Your task to perform on an android device: turn off improve location accuracy Image 0: 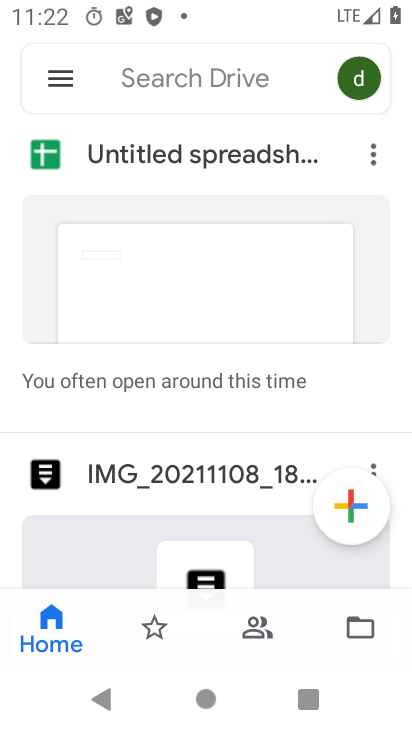
Step 0: press home button
Your task to perform on an android device: turn off improve location accuracy Image 1: 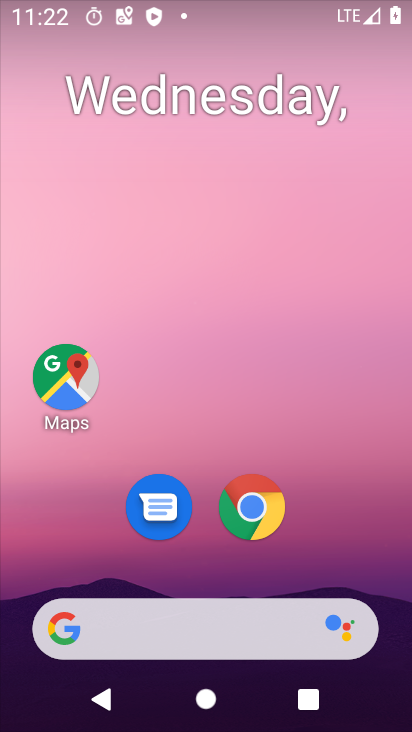
Step 1: drag from (238, 717) to (257, 57)
Your task to perform on an android device: turn off improve location accuracy Image 2: 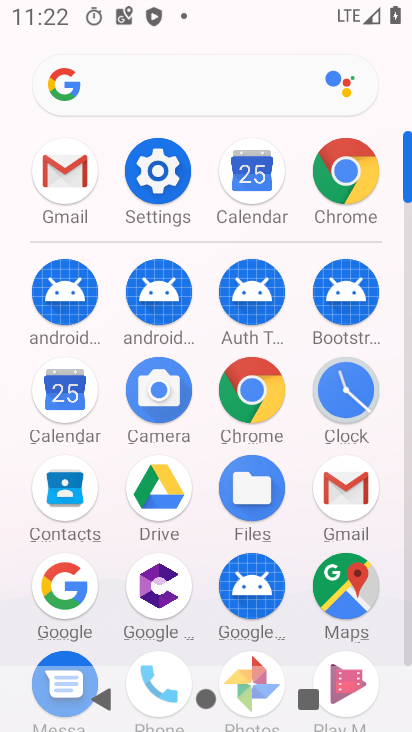
Step 2: click (145, 169)
Your task to perform on an android device: turn off improve location accuracy Image 3: 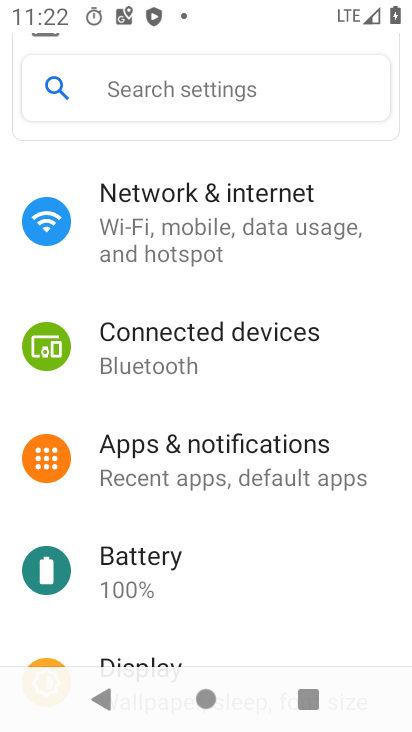
Step 3: drag from (201, 637) to (219, 224)
Your task to perform on an android device: turn off improve location accuracy Image 4: 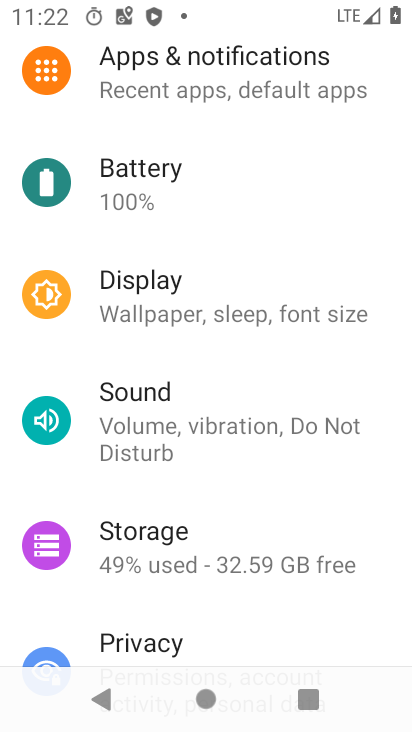
Step 4: drag from (183, 606) to (199, 185)
Your task to perform on an android device: turn off improve location accuracy Image 5: 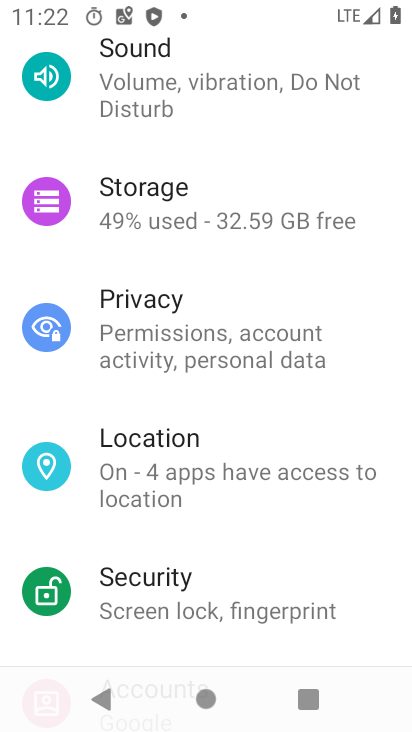
Step 5: click (182, 450)
Your task to perform on an android device: turn off improve location accuracy Image 6: 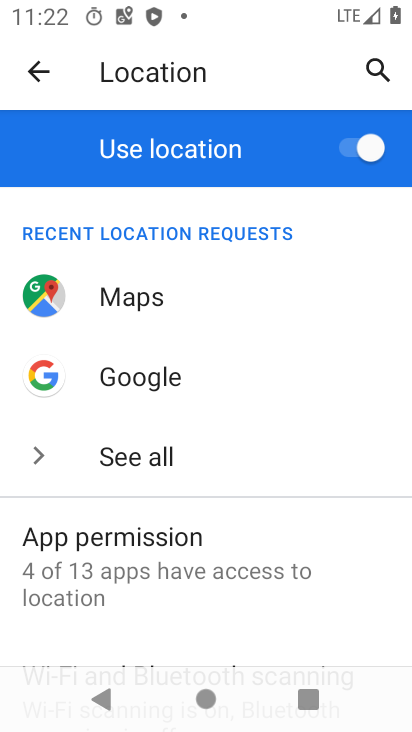
Step 6: drag from (115, 654) to (115, 291)
Your task to perform on an android device: turn off improve location accuracy Image 7: 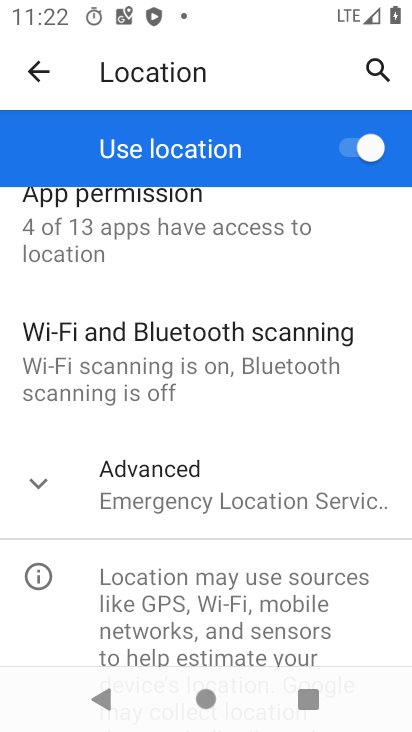
Step 7: click (153, 485)
Your task to perform on an android device: turn off improve location accuracy Image 8: 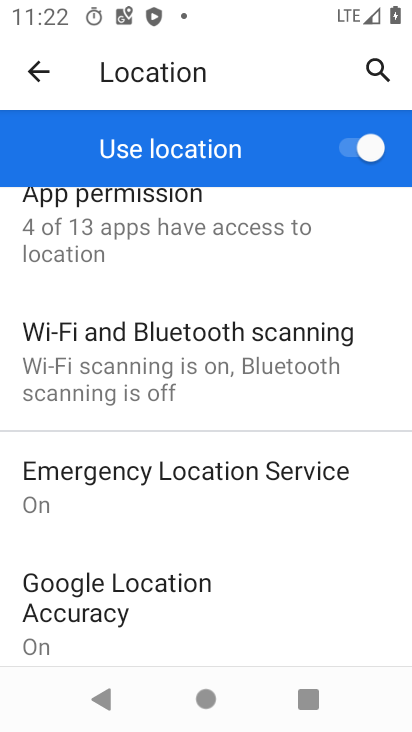
Step 8: click (142, 584)
Your task to perform on an android device: turn off improve location accuracy Image 9: 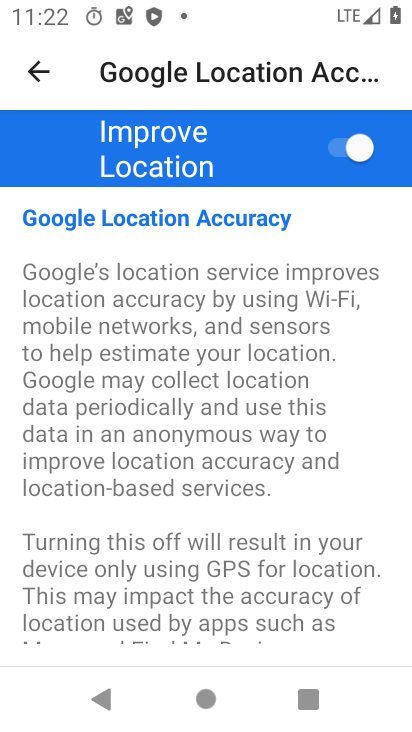
Step 9: drag from (159, 618) to (166, 235)
Your task to perform on an android device: turn off improve location accuracy Image 10: 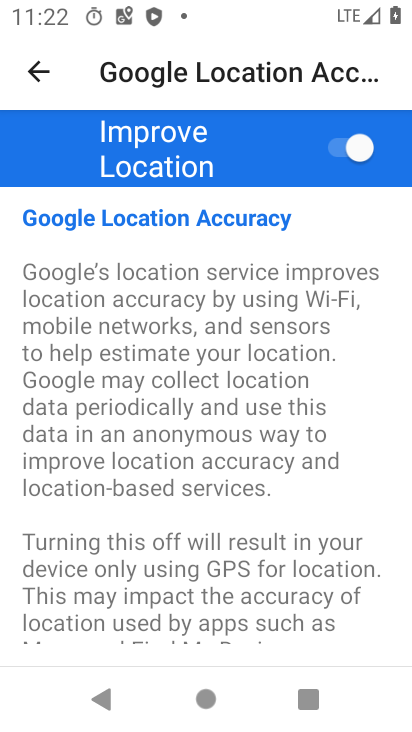
Step 10: drag from (220, 602) to (217, 186)
Your task to perform on an android device: turn off improve location accuracy Image 11: 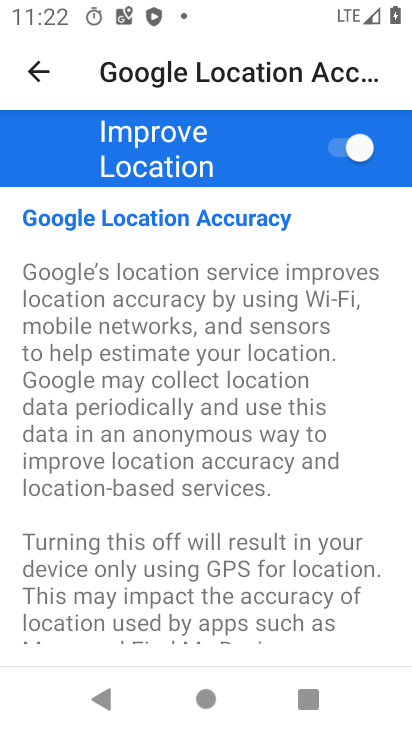
Step 11: click (336, 146)
Your task to perform on an android device: turn off improve location accuracy Image 12: 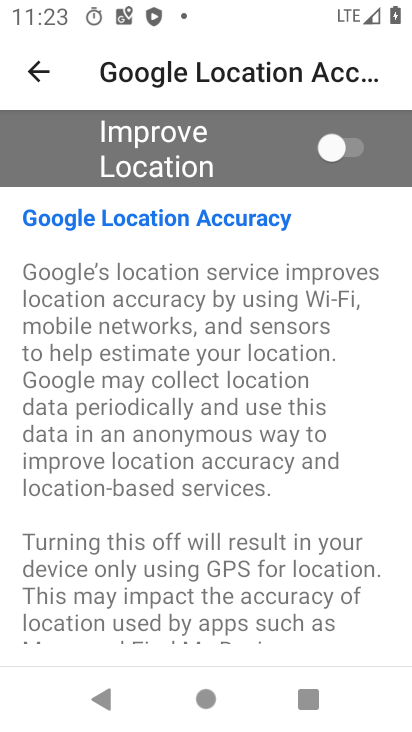
Step 12: task complete